Your task to perform on an android device: change notifications settings Image 0: 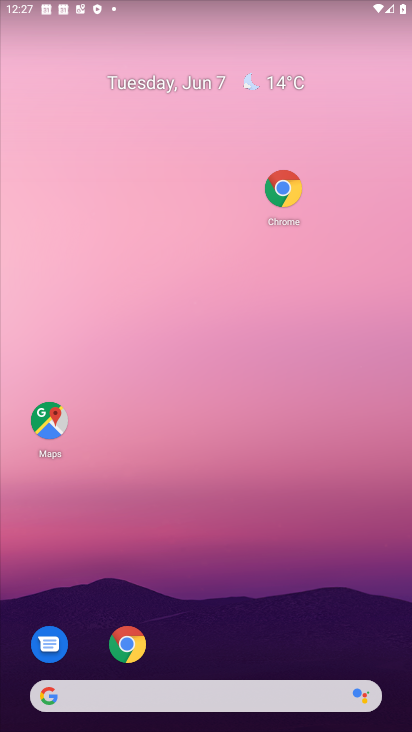
Step 0: drag from (237, 559) to (151, 13)
Your task to perform on an android device: change notifications settings Image 1: 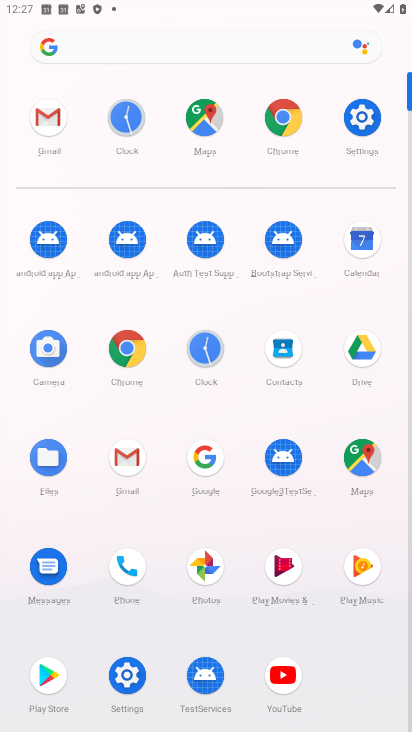
Step 1: click (372, 114)
Your task to perform on an android device: change notifications settings Image 2: 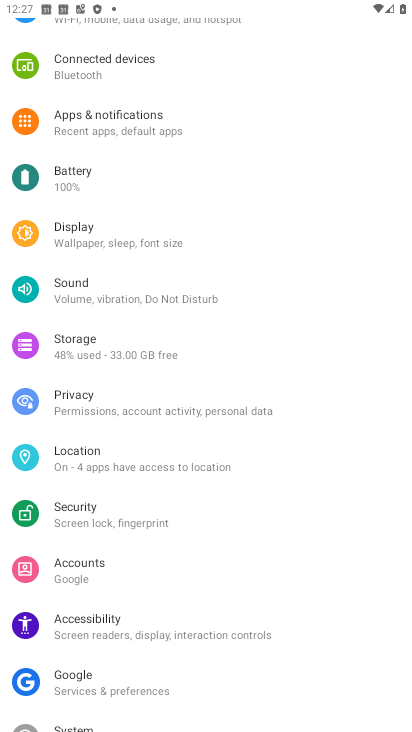
Step 2: click (115, 116)
Your task to perform on an android device: change notifications settings Image 3: 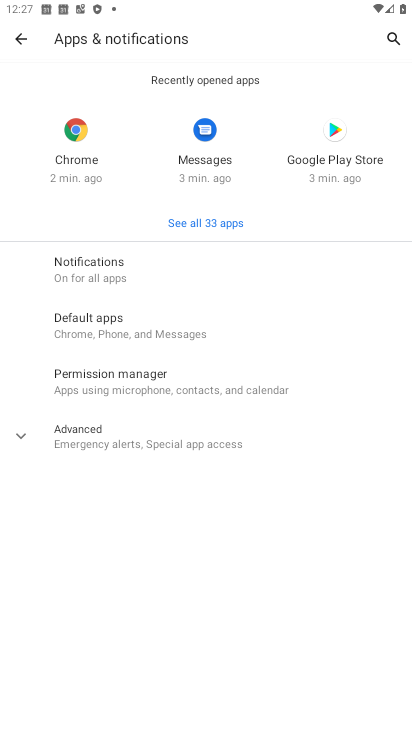
Step 3: click (133, 265)
Your task to perform on an android device: change notifications settings Image 4: 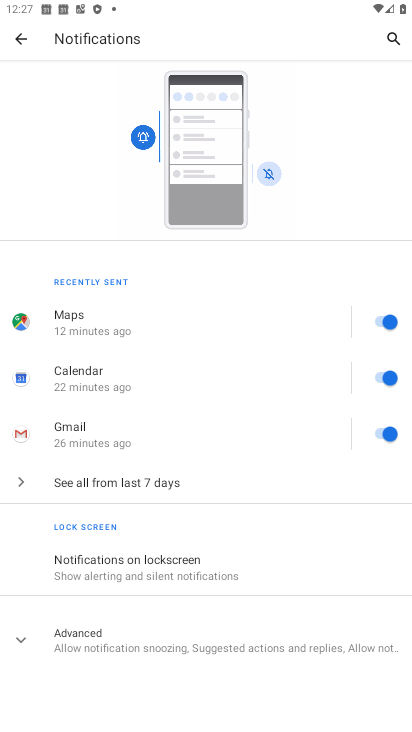
Step 4: click (152, 638)
Your task to perform on an android device: change notifications settings Image 5: 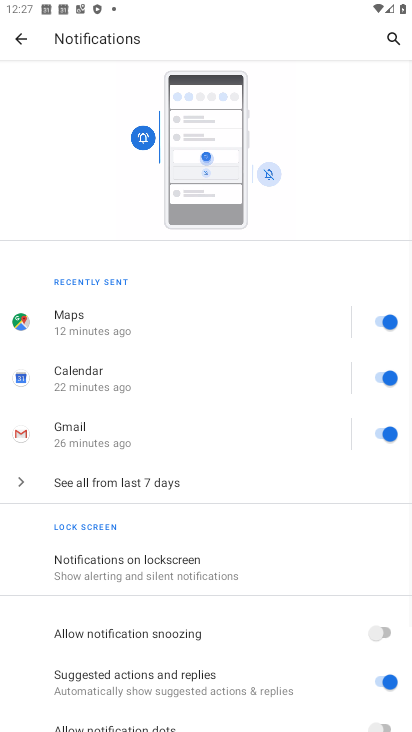
Step 5: click (376, 626)
Your task to perform on an android device: change notifications settings Image 6: 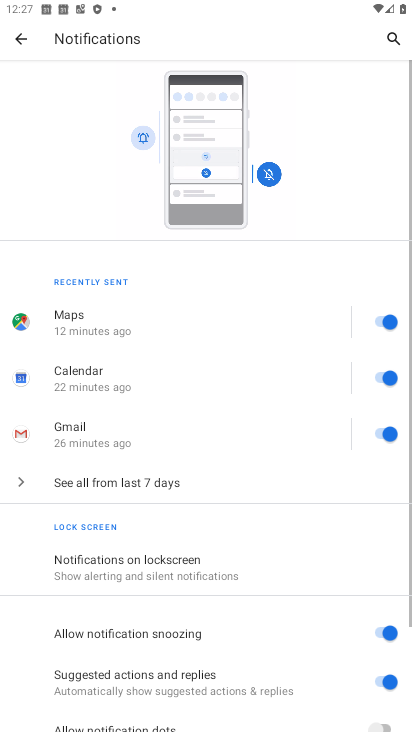
Step 6: task complete